Your task to perform on an android device: turn on translation in the chrome app Image 0: 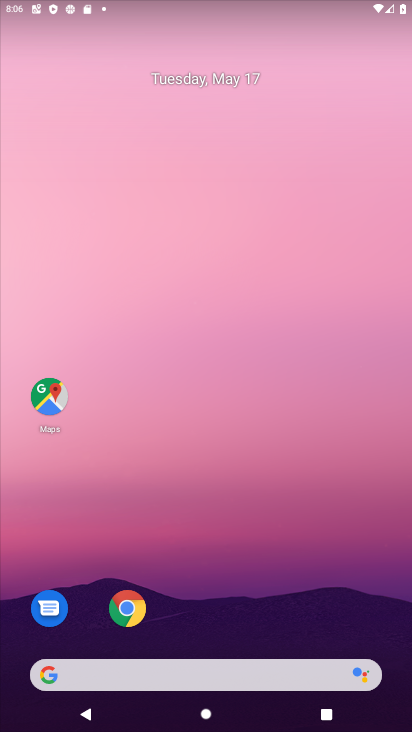
Step 0: click (122, 612)
Your task to perform on an android device: turn on translation in the chrome app Image 1: 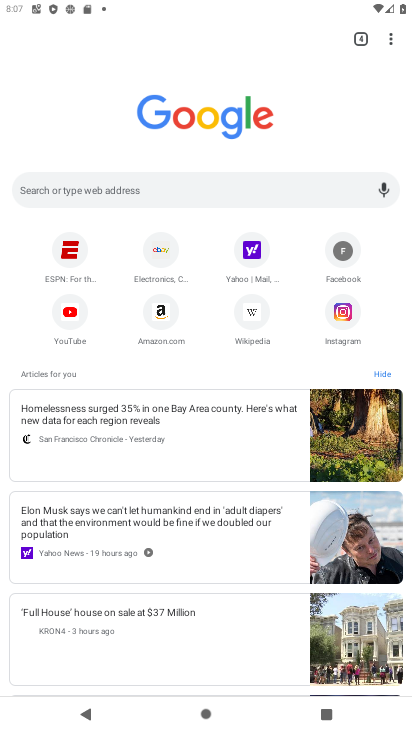
Step 1: click (392, 39)
Your task to perform on an android device: turn on translation in the chrome app Image 2: 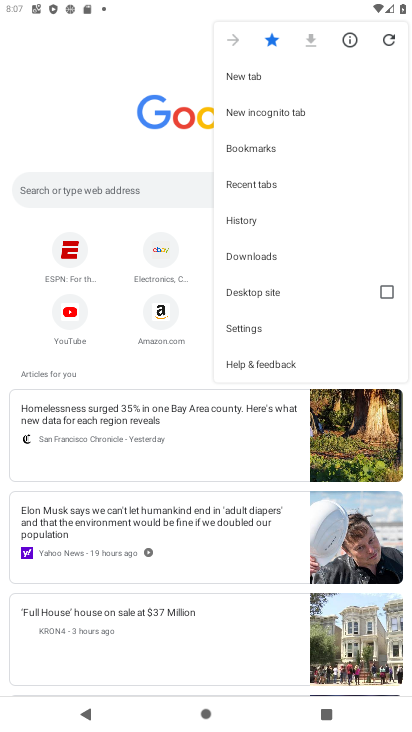
Step 2: click (257, 332)
Your task to perform on an android device: turn on translation in the chrome app Image 3: 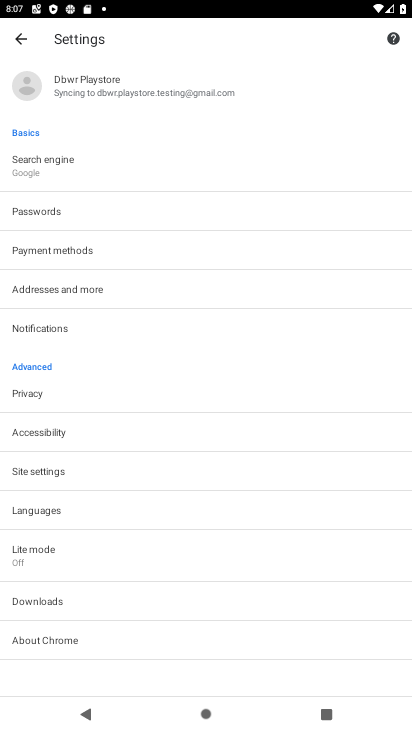
Step 3: click (96, 521)
Your task to perform on an android device: turn on translation in the chrome app Image 4: 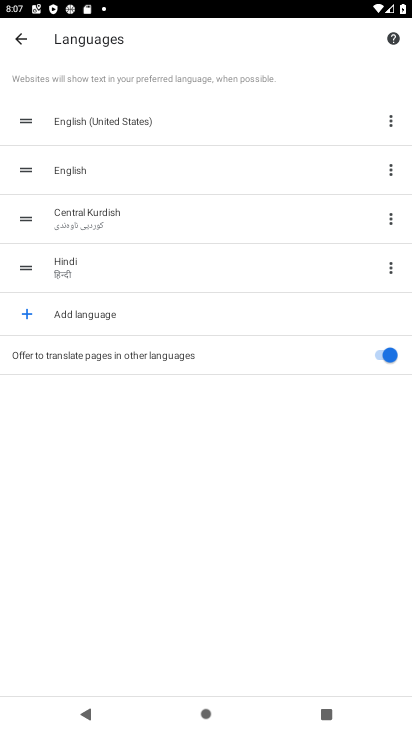
Step 4: task complete